Your task to perform on an android device: open device folders in google photos Image 0: 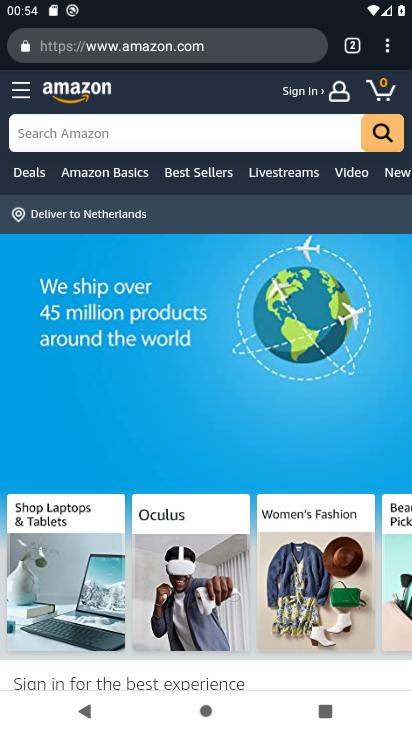
Step 0: press home button
Your task to perform on an android device: open device folders in google photos Image 1: 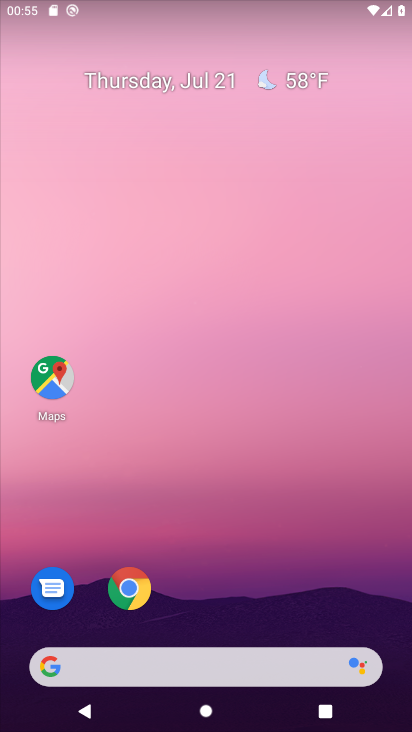
Step 1: drag from (244, 609) to (237, 121)
Your task to perform on an android device: open device folders in google photos Image 2: 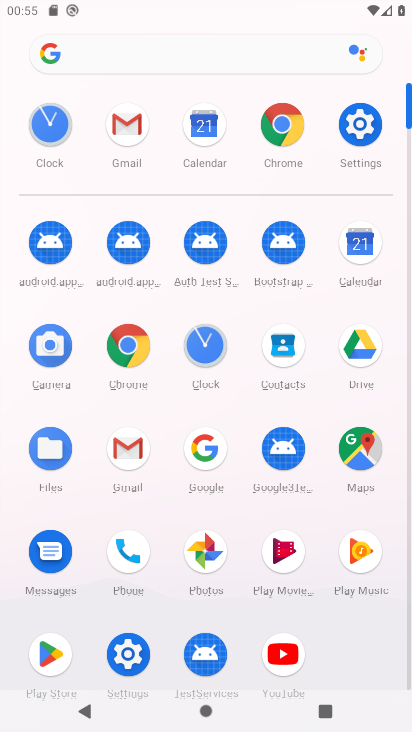
Step 2: click (213, 568)
Your task to perform on an android device: open device folders in google photos Image 3: 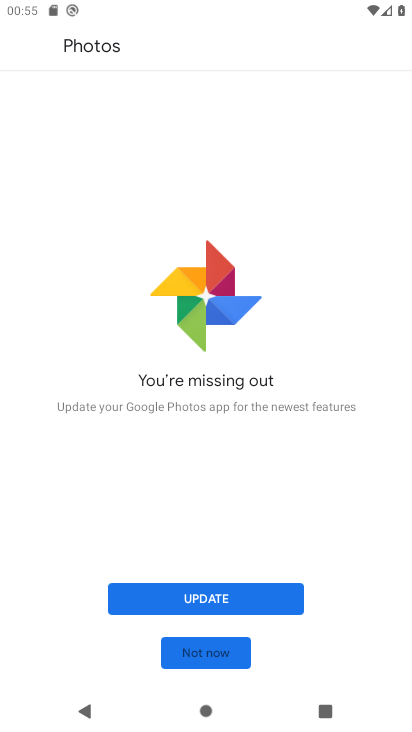
Step 3: click (220, 652)
Your task to perform on an android device: open device folders in google photos Image 4: 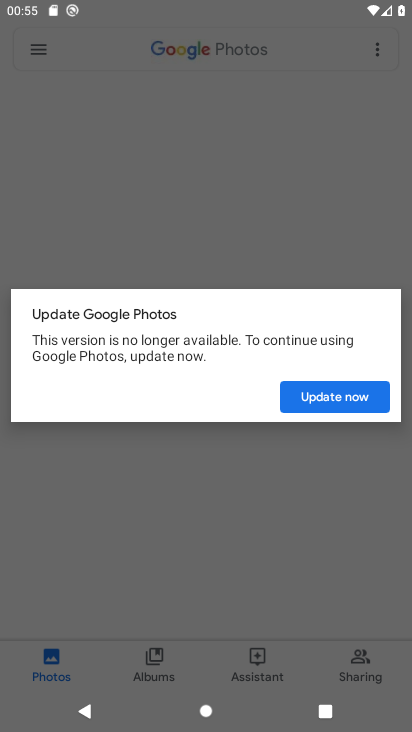
Step 4: click (332, 392)
Your task to perform on an android device: open device folders in google photos Image 5: 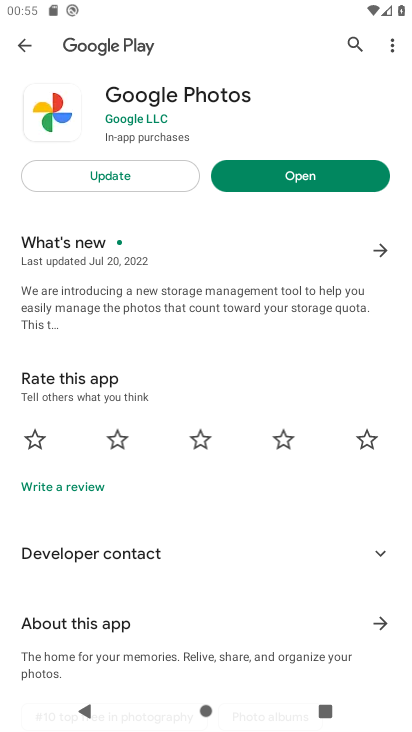
Step 5: click (298, 178)
Your task to perform on an android device: open device folders in google photos Image 6: 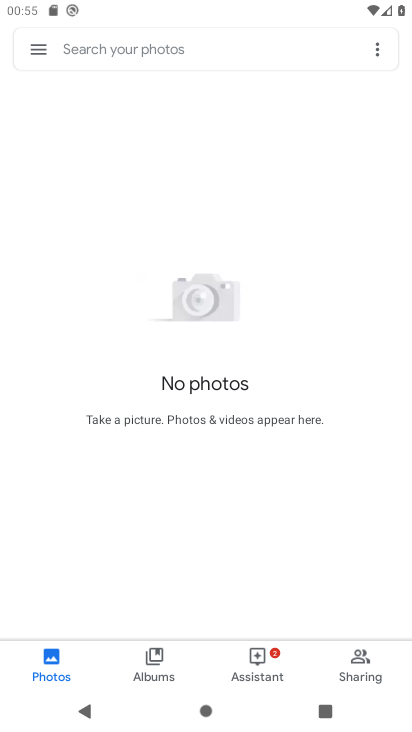
Step 6: click (37, 48)
Your task to perform on an android device: open device folders in google photos Image 7: 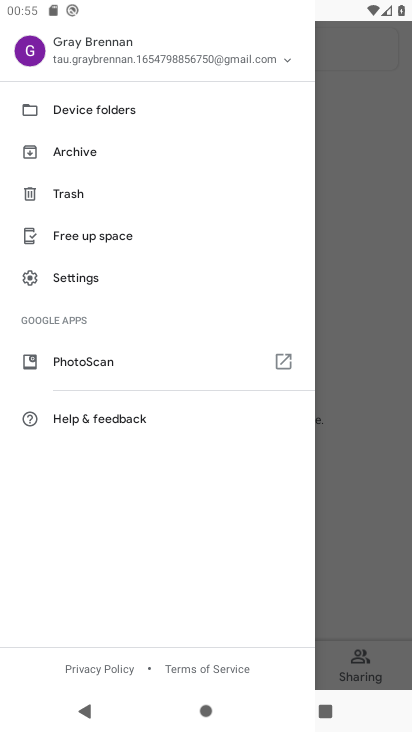
Step 7: click (103, 105)
Your task to perform on an android device: open device folders in google photos Image 8: 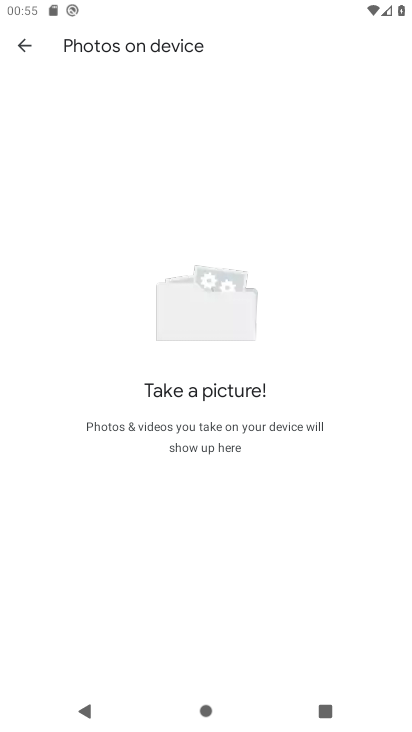
Step 8: task complete